Your task to perform on an android device: star an email in the gmail app Image 0: 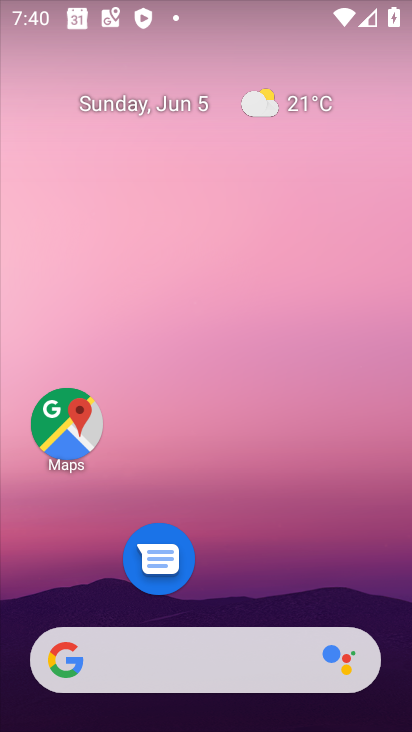
Step 0: drag from (217, 611) to (142, 9)
Your task to perform on an android device: star an email in the gmail app Image 1: 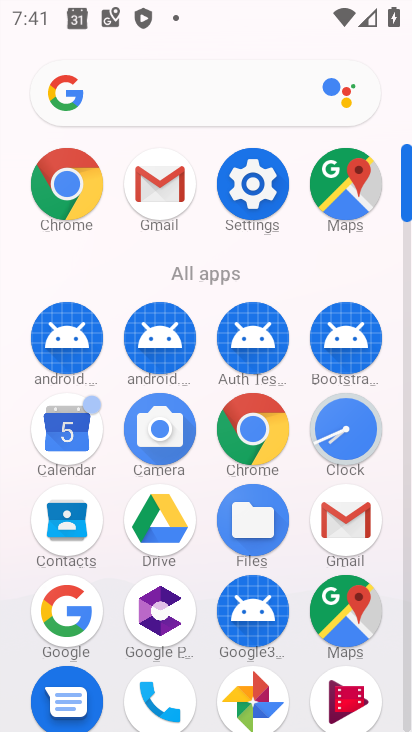
Step 1: click (354, 511)
Your task to perform on an android device: star an email in the gmail app Image 2: 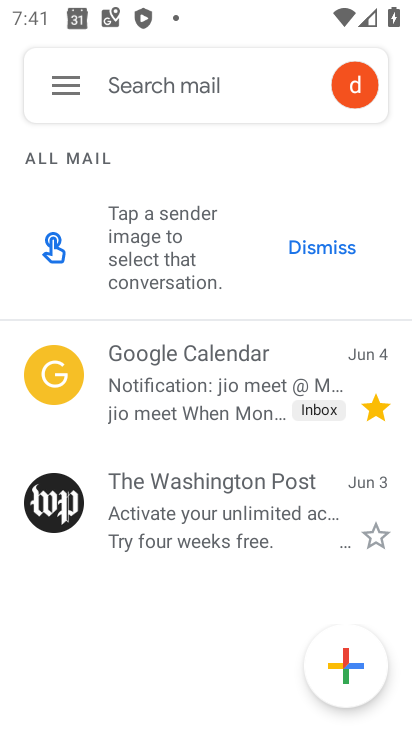
Step 2: click (369, 542)
Your task to perform on an android device: star an email in the gmail app Image 3: 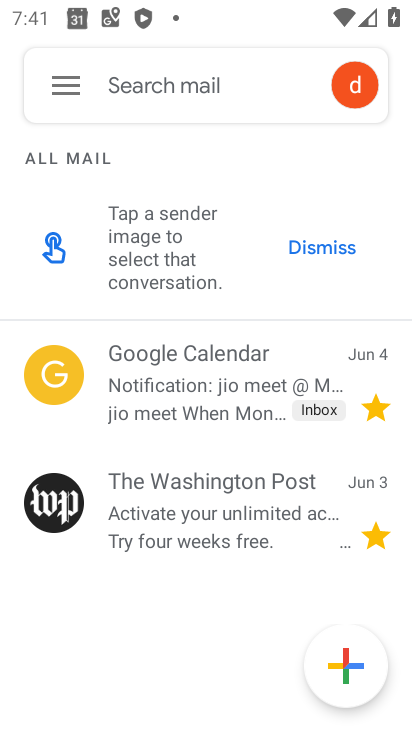
Step 3: task complete